Your task to perform on an android device: empty trash in google photos Image 0: 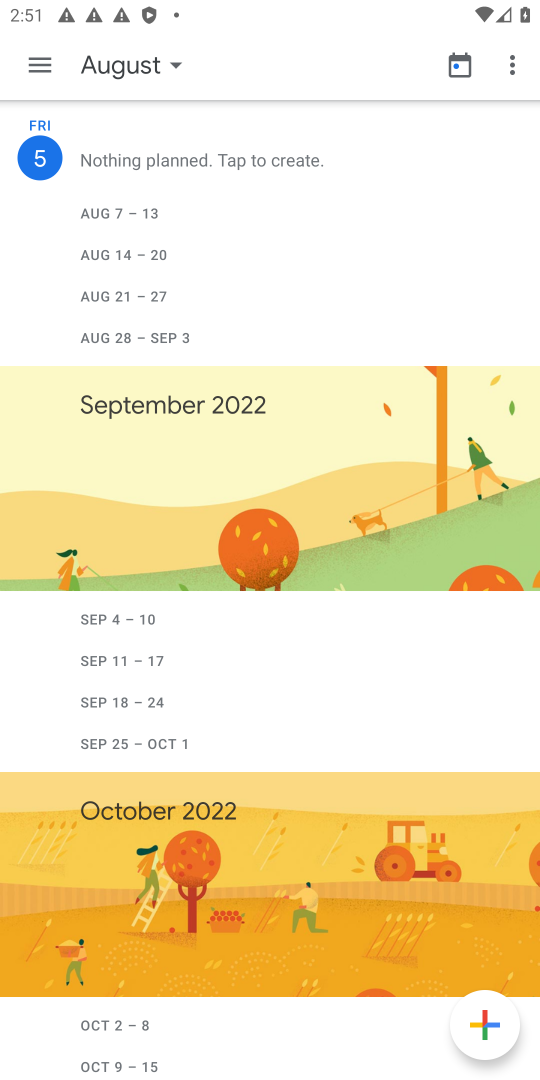
Step 0: press home button
Your task to perform on an android device: empty trash in google photos Image 1: 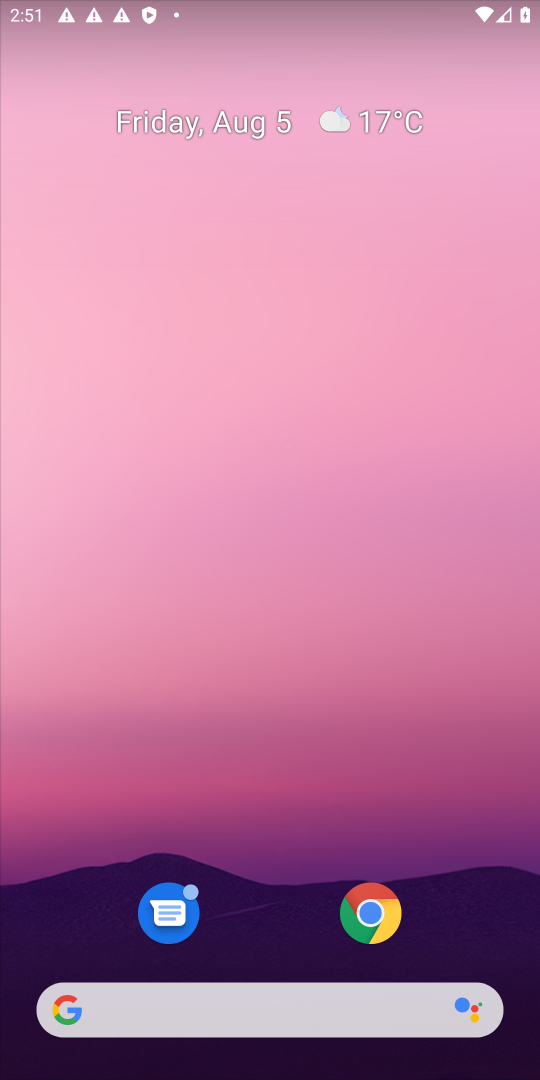
Step 1: click (367, 913)
Your task to perform on an android device: empty trash in google photos Image 2: 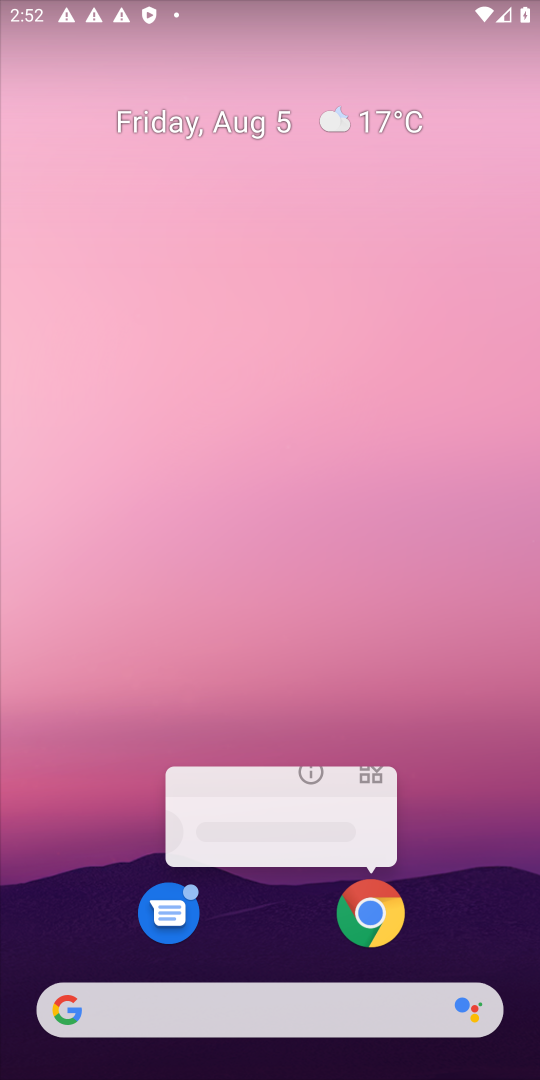
Step 2: press home button
Your task to perform on an android device: empty trash in google photos Image 3: 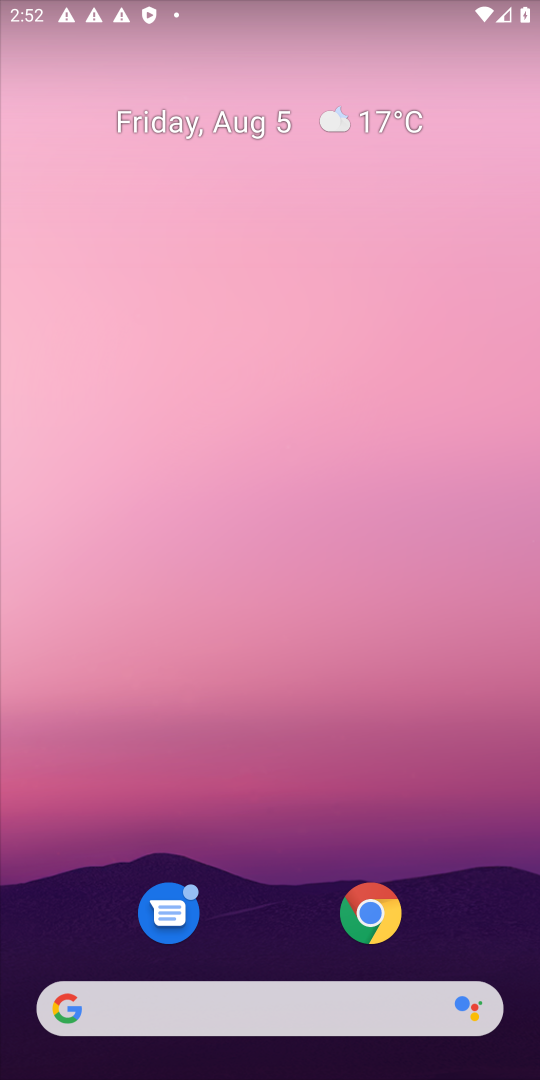
Step 3: drag from (279, 1022) to (403, 209)
Your task to perform on an android device: empty trash in google photos Image 4: 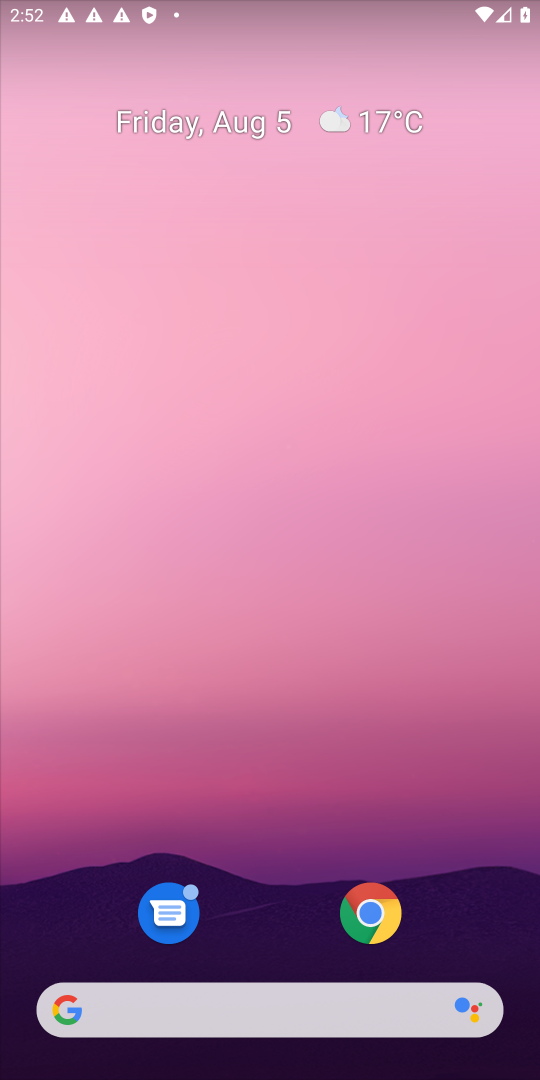
Step 4: drag from (254, 865) to (414, 151)
Your task to perform on an android device: empty trash in google photos Image 5: 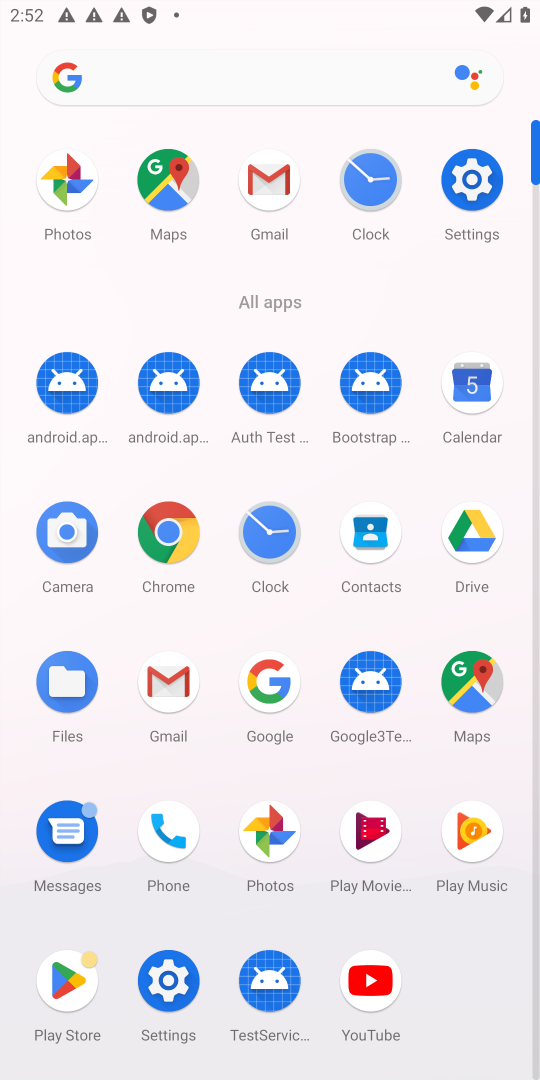
Step 5: click (262, 819)
Your task to perform on an android device: empty trash in google photos Image 6: 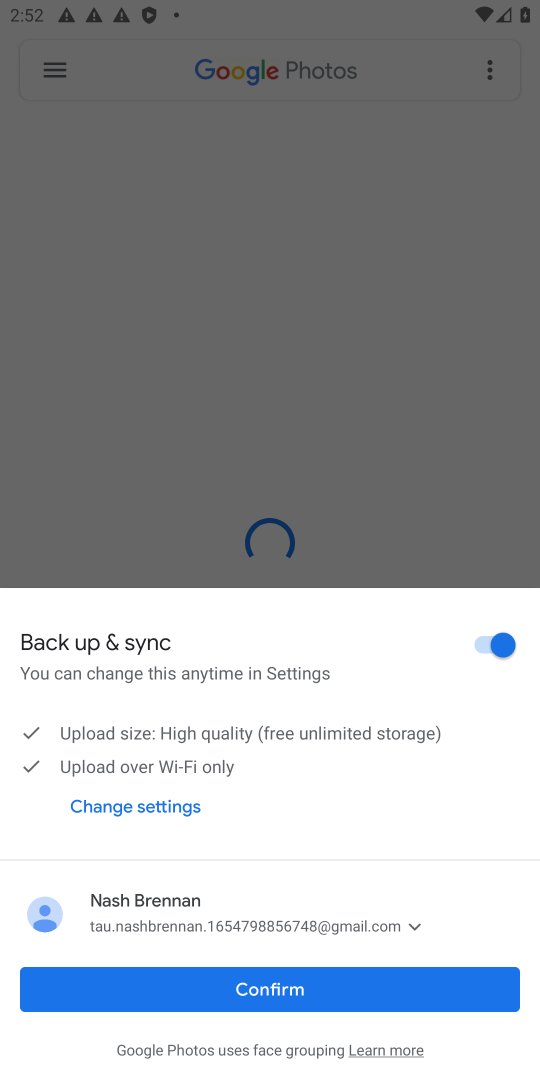
Step 6: click (291, 1000)
Your task to perform on an android device: empty trash in google photos Image 7: 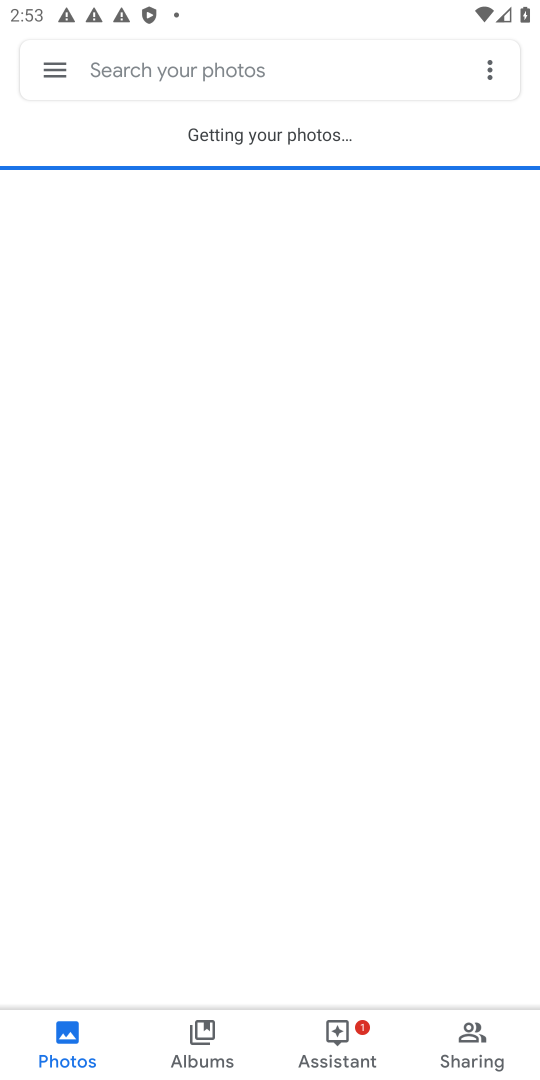
Step 7: click (58, 72)
Your task to perform on an android device: empty trash in google photos Image 8: 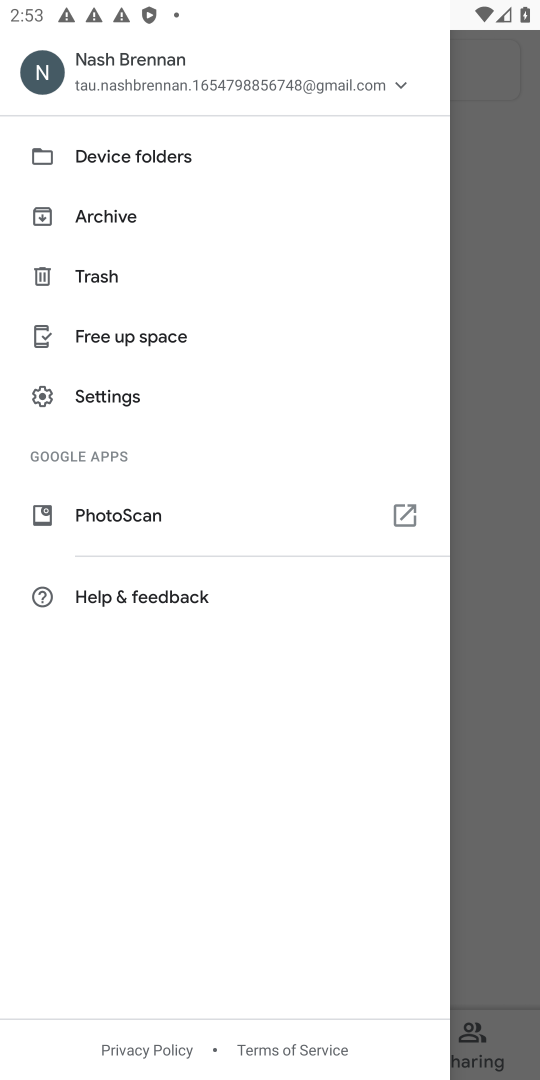
Step 8: click (111, 274)
Your task to perform on an android device: empty trash in google photos Image 9: 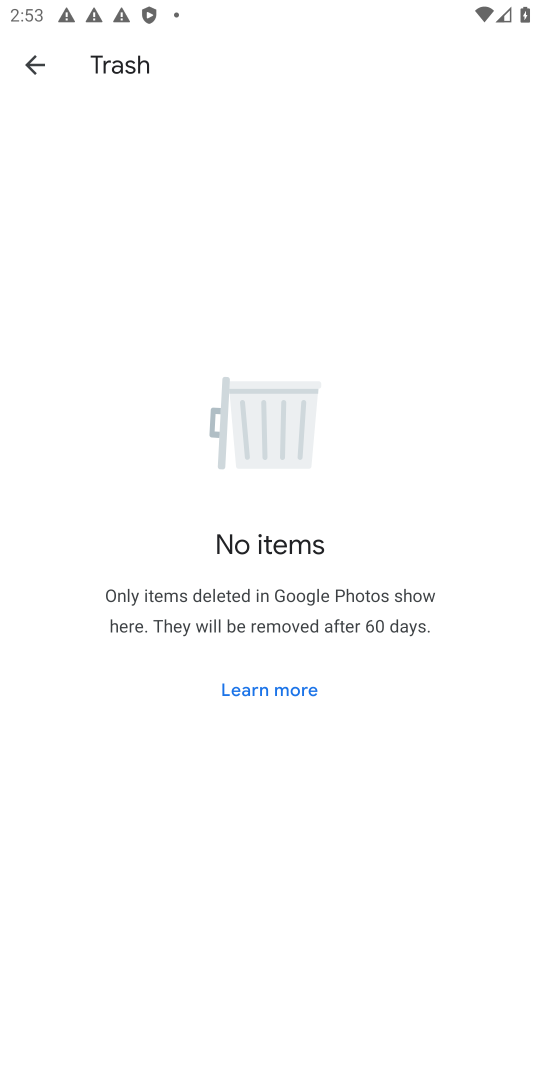
Step 9: task complete